Your task to perform on an android device: open app "Microsoft Outlook" Image 0: 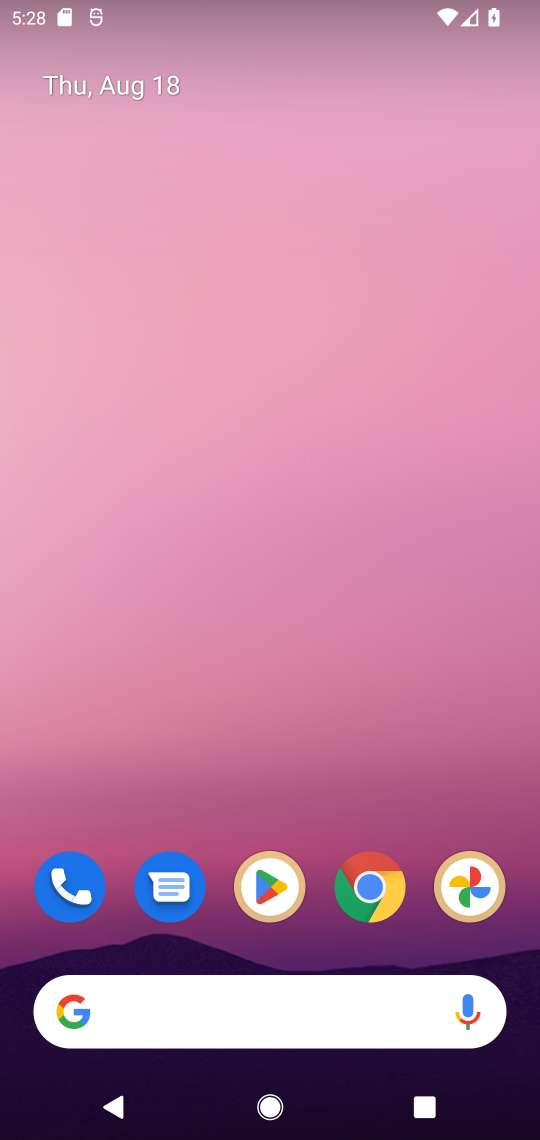
Step 0: click (303, 758)
Your task to perform on an android device: open app "Microsoft Outlook" Image 1: 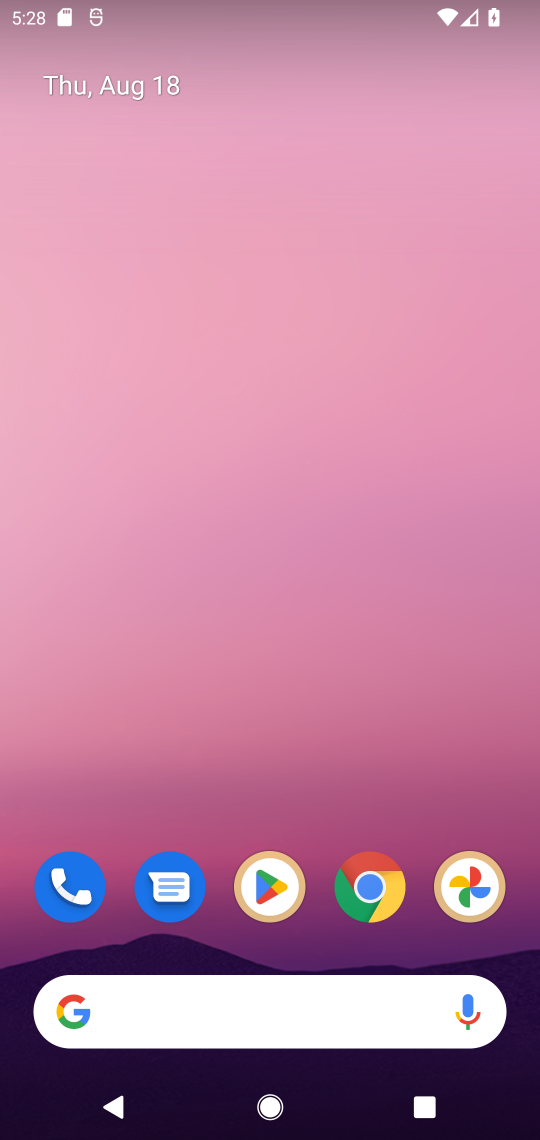
Step 1: click (268, 883)
Your task to perform on an android device: open app "Microsoft Outlook" Image 2: 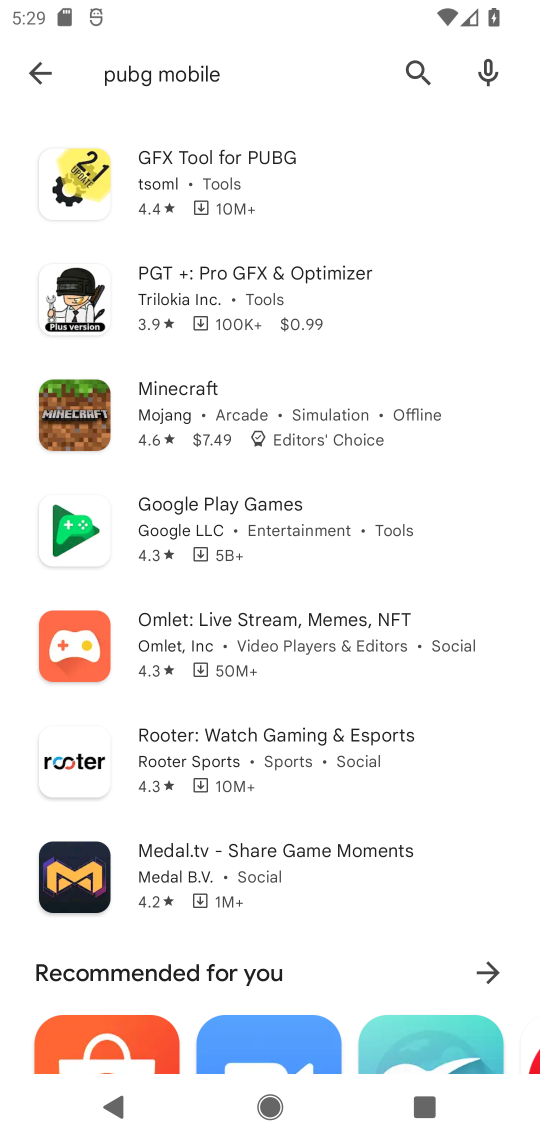
Step 2: click (412, 61)
Your task to perform on an android device: open app "Microsoft Outlook" Image 3: 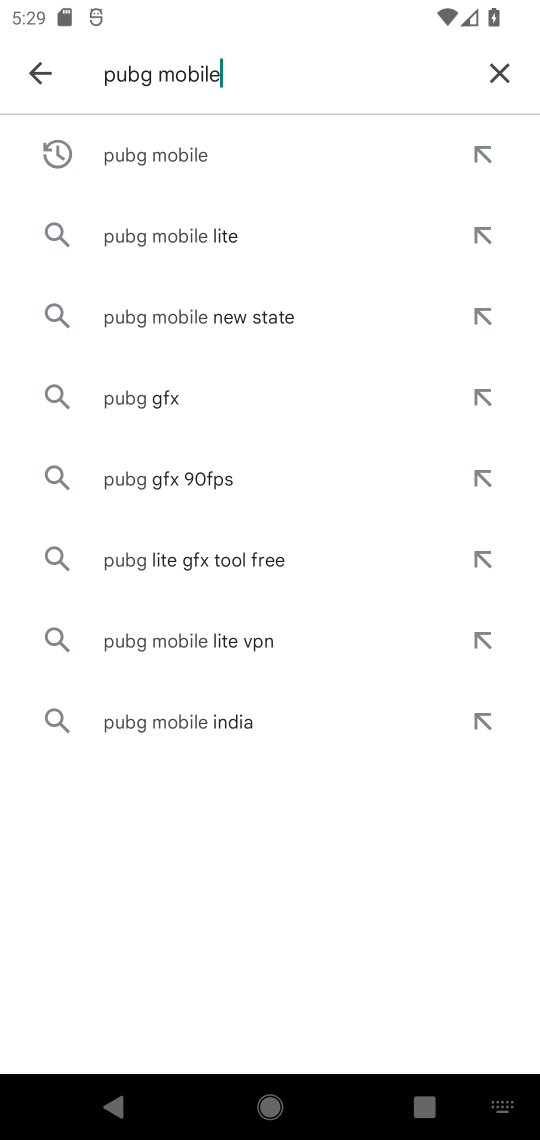
Step 3: click (496, 62)
Your task to perform on an android device: open app "Microsoft Outlook" Image 4: 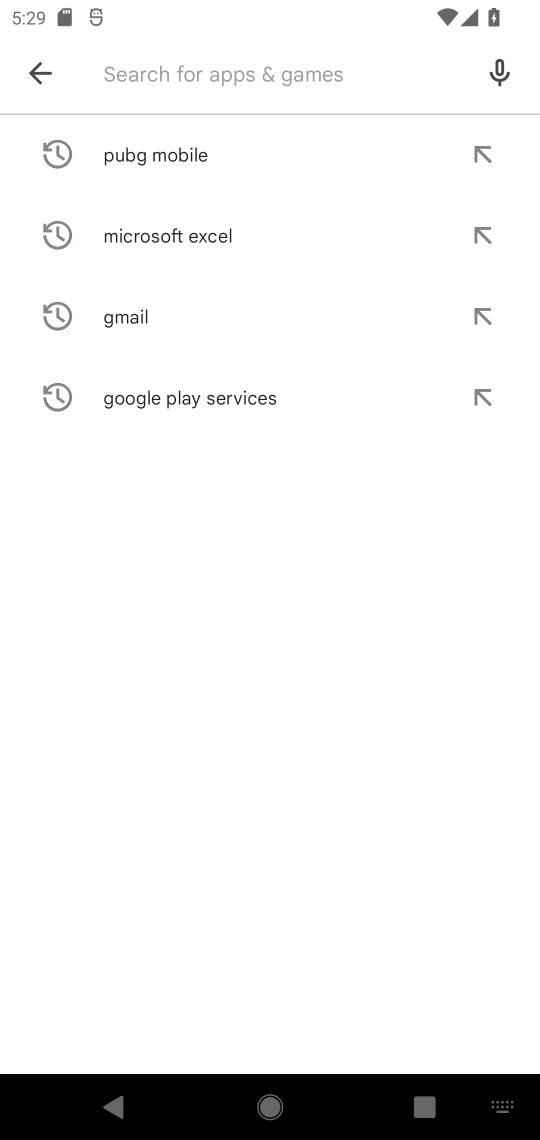
Step 4: type "Microsoft Outlook"
Your task to perform on an android device: open app "Microsoft Outlook" Image 5: 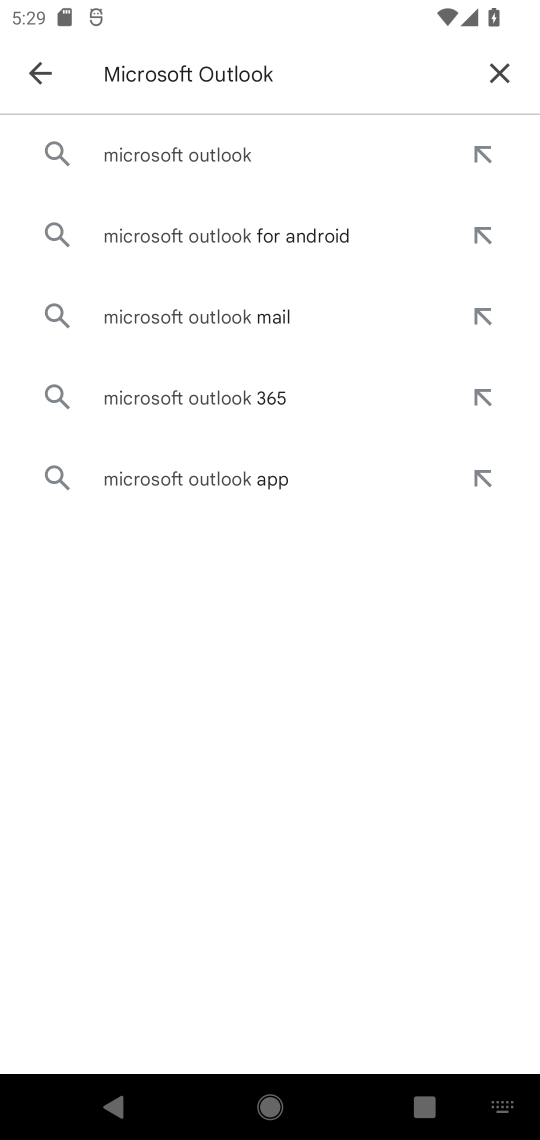
Step 5: click (121, 151)
Your task to perform on an android device: open app "Microsoft Outlook" Image 6: 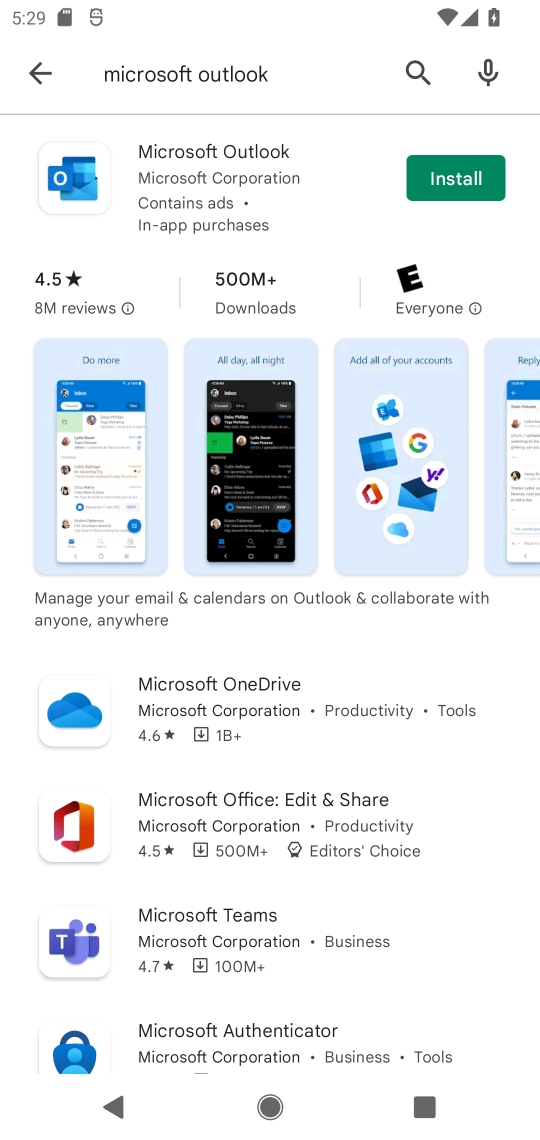
Step 6: click (461, 179)
Your task to perform on an android device: open app "Microsoft Outlook" Image 7: 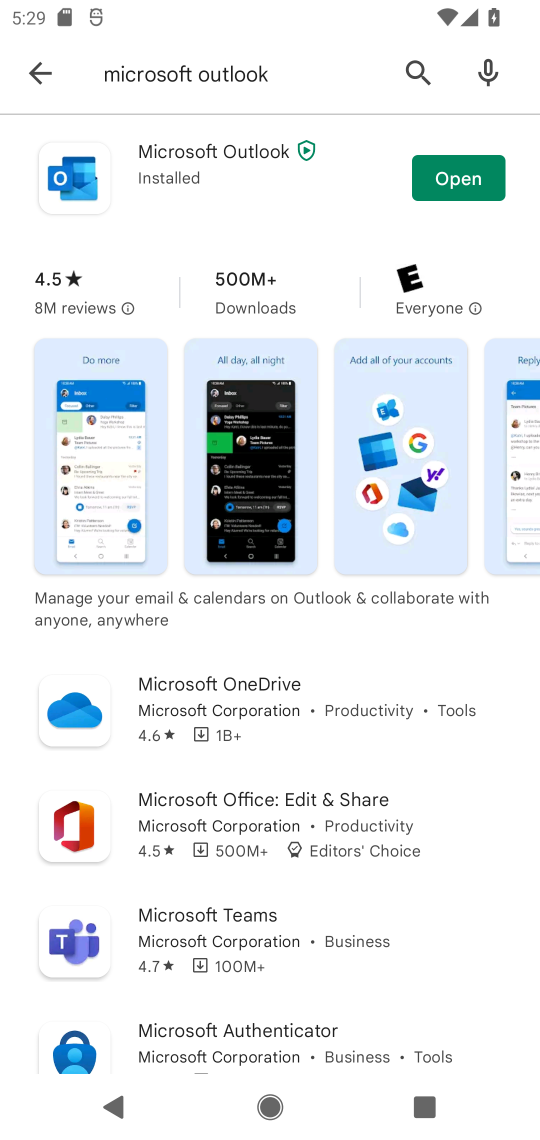
Step 7: click (461, 179)
Your task to perform on an android device: open app "Microsoft Outlook" Image 8: 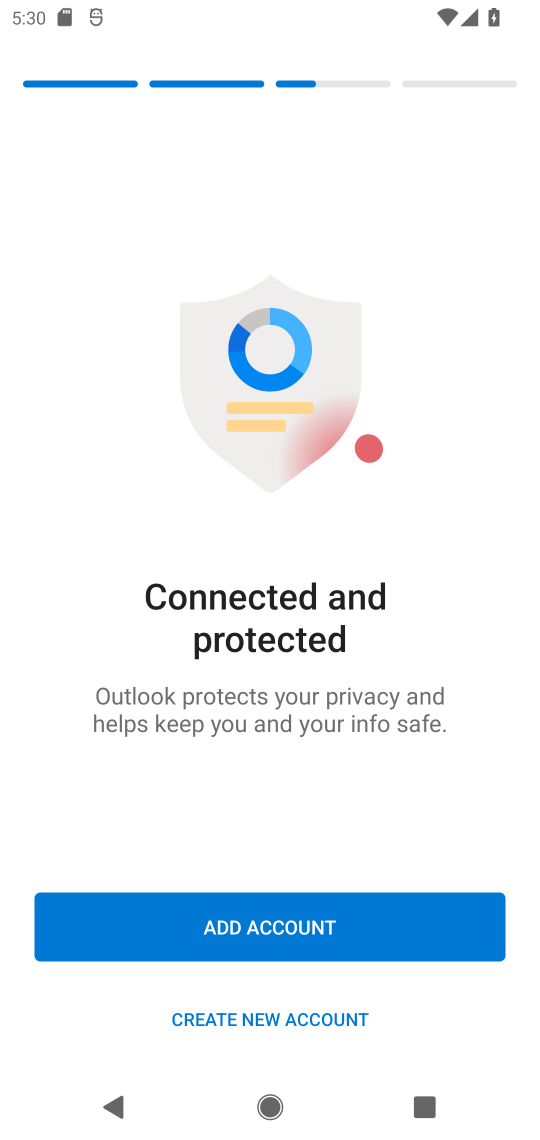
Step 8: task complete